Your task to perform on an android device: install app "Google Duo" Image 0: 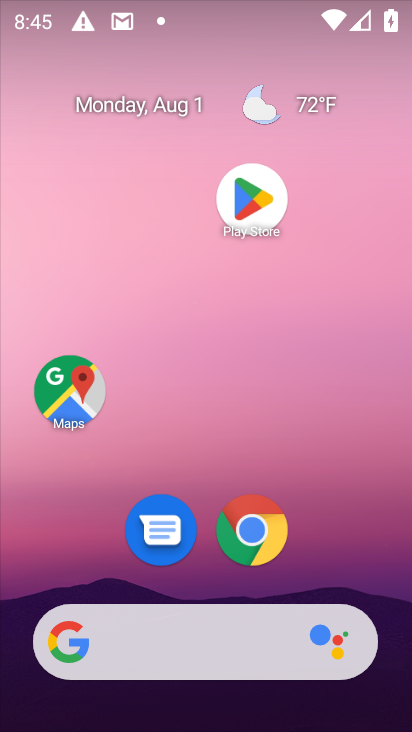
Step 0: click (259, 190)
Your task to perform on an android device: install app "Google Duo" Image 1: 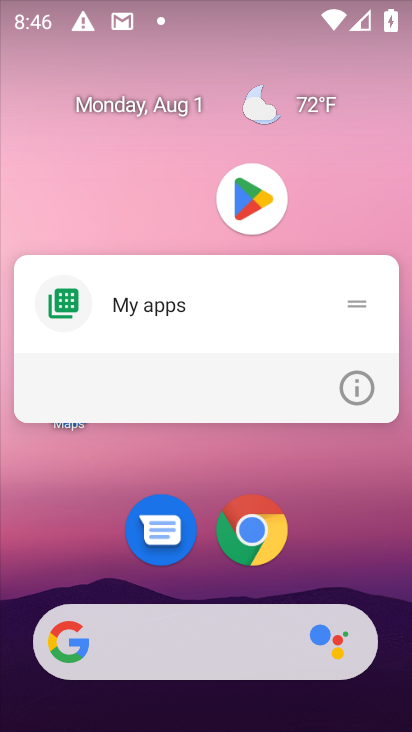
Step 1: click (259, 190)
Your task to perform on an android device: install app "Google Duo" Image 2: 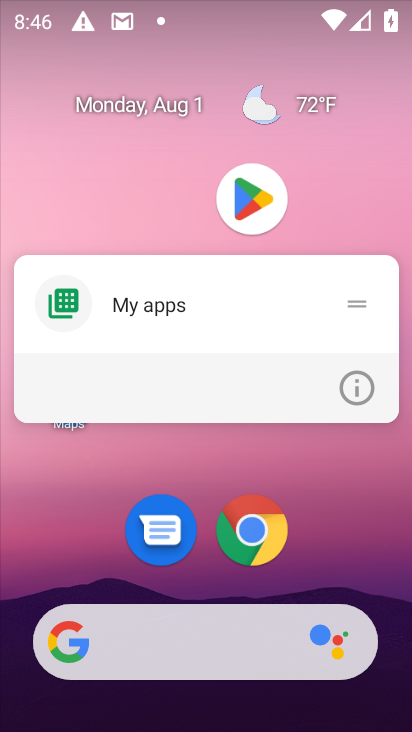
Step 2: click (259, 190)
Your task to perform on an android device: install app "Google Duo" Image 3: 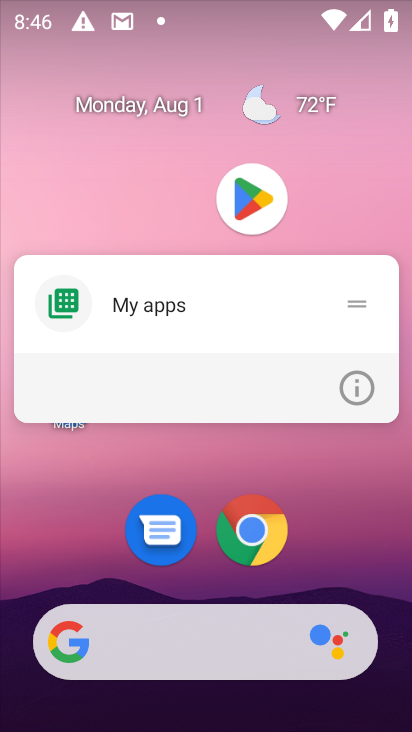
Step 3: click (259, 190)
Your task to perform on an android device: install app "Google Duo" Image 4: 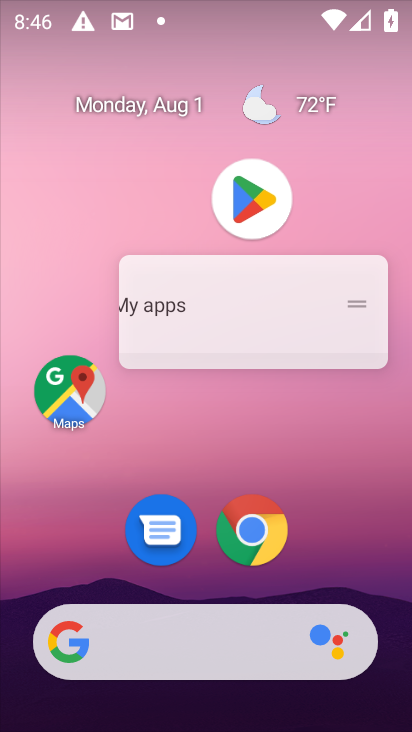
Step 4: click (259, 190)
Your task to perform on an android device: install app "Google Duo" Image 5: 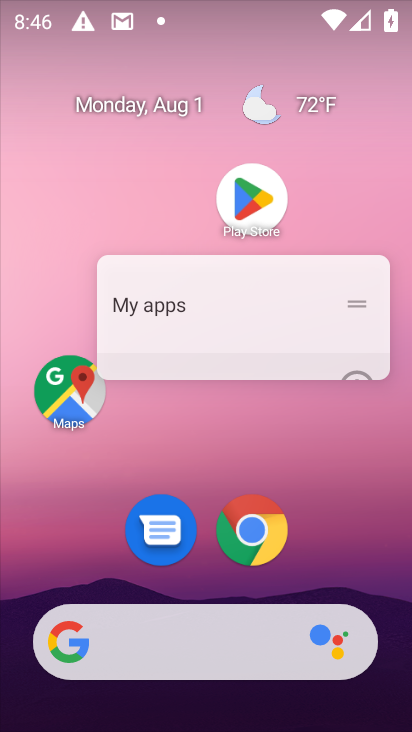
Step 5: click (259, 190)
Your task to perform on an android device: install app "Google Duo" Image 6: 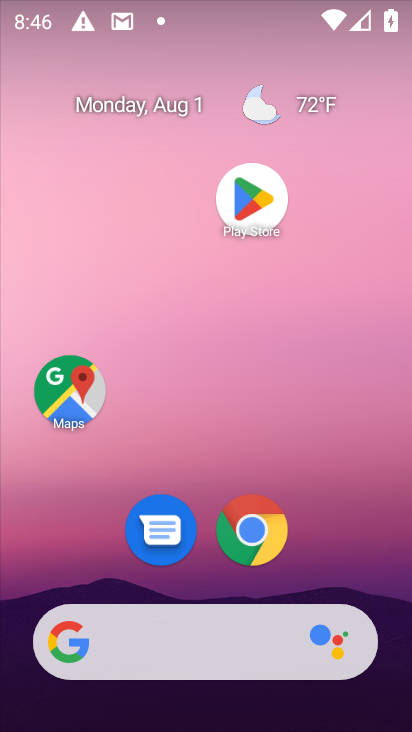
Step 6: click (259, 190)
Your task to perform on an android device: install app "Google Duo" Image 7: 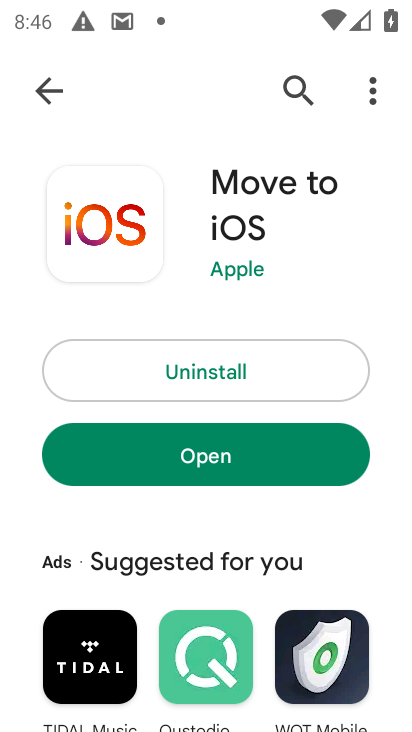
Step 7: click (300, 77)
Your task to perform on an android device: install app "Google Duo" Image 8: 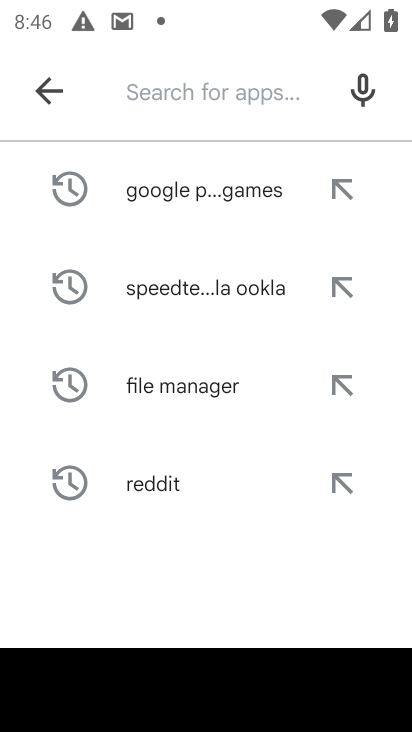
Step 8: type "google duo "
Your task to perform on an android device: install app "Google Duo" Image 9: 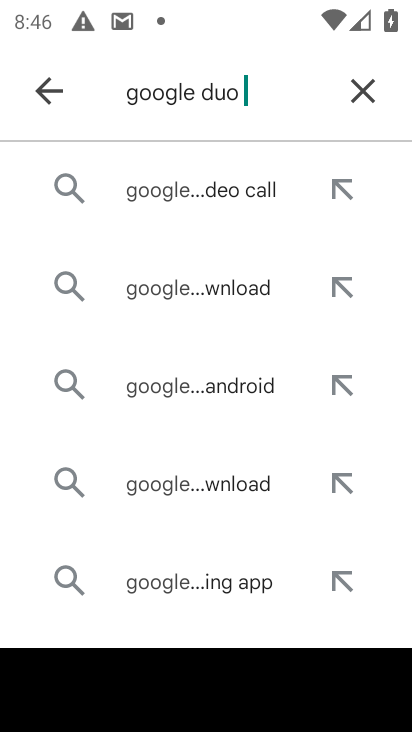
Step 9: press home button
Your task to perform on an android device: install app "Google Duo" Image 10: 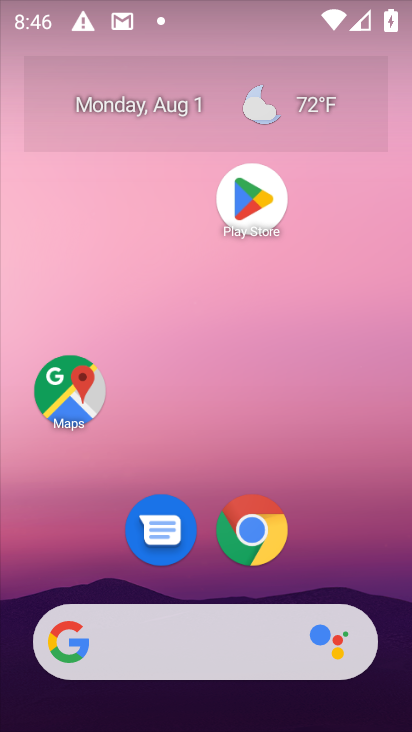
Step 10: drag from (100, 675) to (129, 85)
Your task to perform on an android device: install app "Google Duo" Image 11: 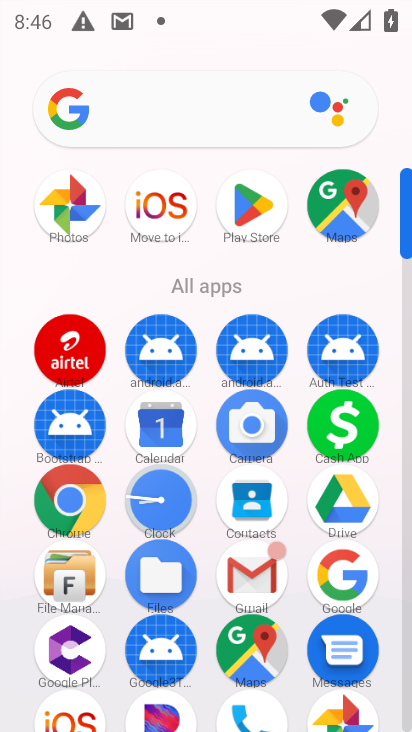
Step 11: click (257, 210)
Your task to perform on an android device: install app "Google Duo" Image 12: 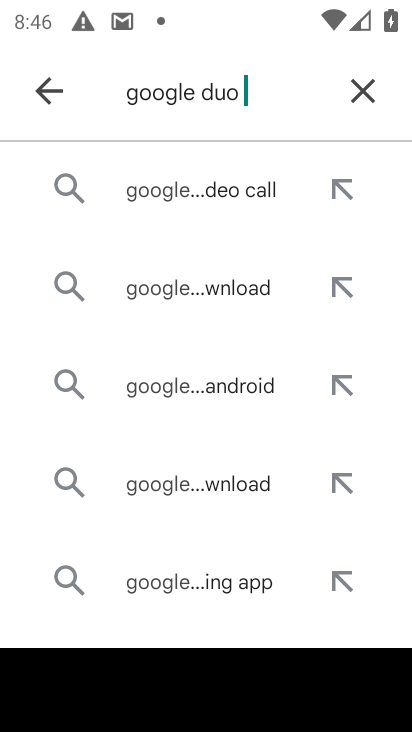
Step 12: press enter
Your task to perform on an android device: install app "Google Duo" Image 13: 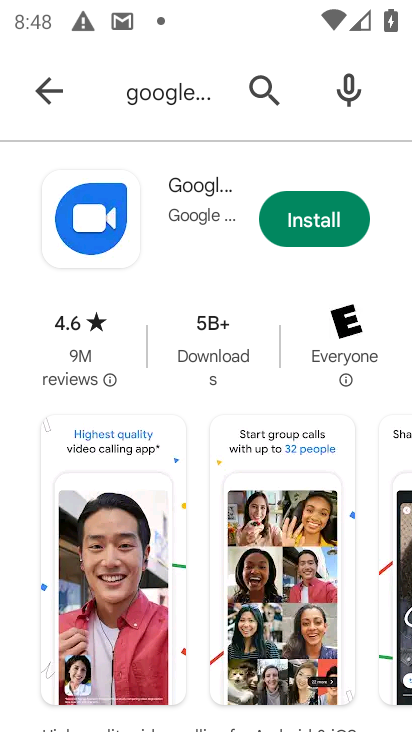
Step 13: click (319, 220)
Your task to perform on an android device: install app "Google Duo" Image 14: 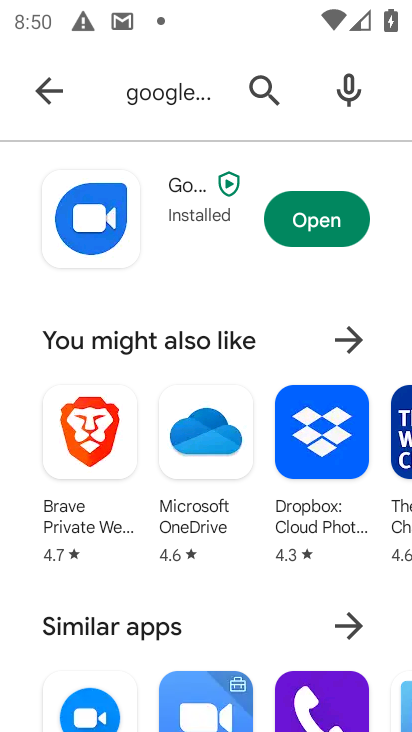
Step 14: task complete